Your task to perform on an android device: Is it going to rain this weekend? Image 0: 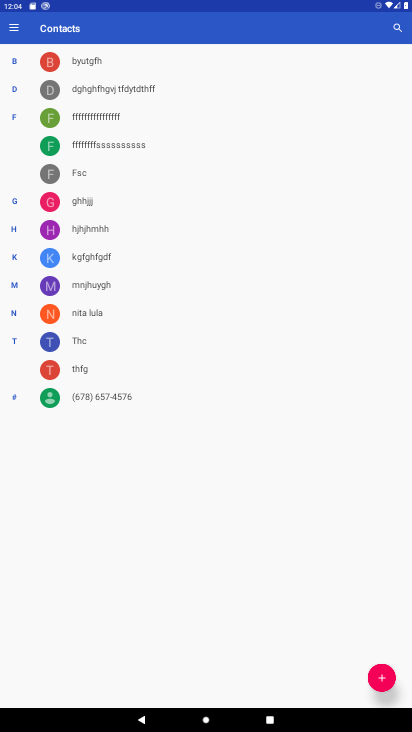
Step 0: press home button
Your task to perform on an android device: Is it going to rain this weekend? Image 1: 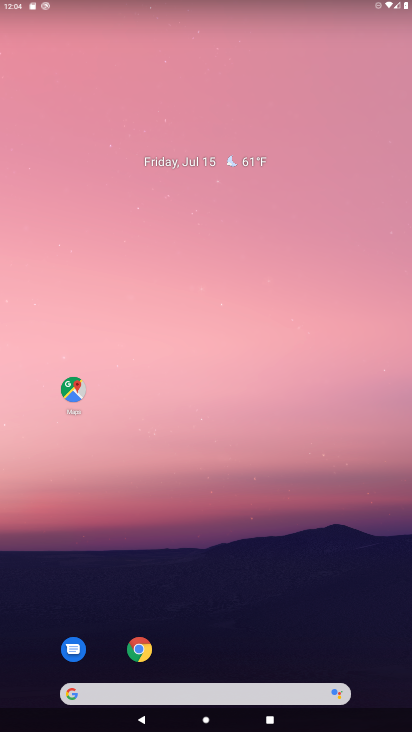
Step 1: click (111, 696)
Your task to perform on an android device: Is it going to rain this weekend? Image 2: 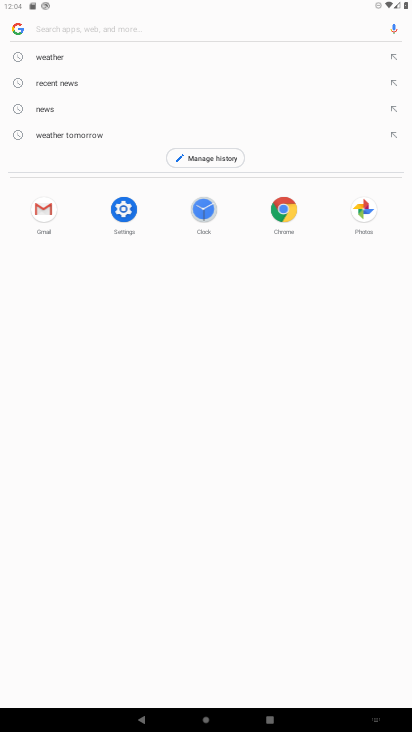
Step 2: click (67, 23)
Your task to perform on an android device: Is it going to rain this weekend? Image 3: 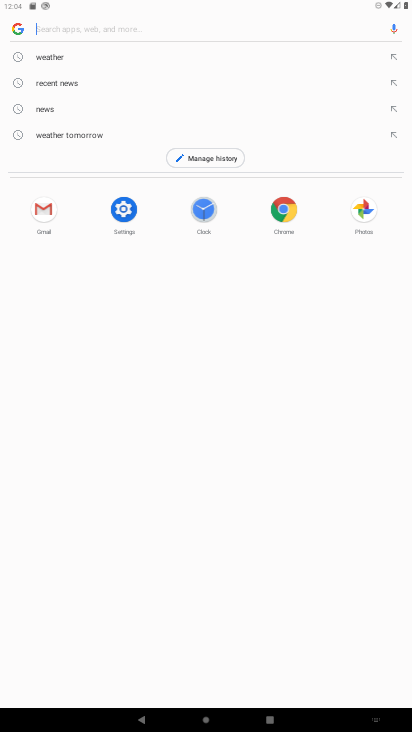
Step 3: click (53, 61)
Your task to perform on an android device: Is it going to rain this weekend? Image 4: 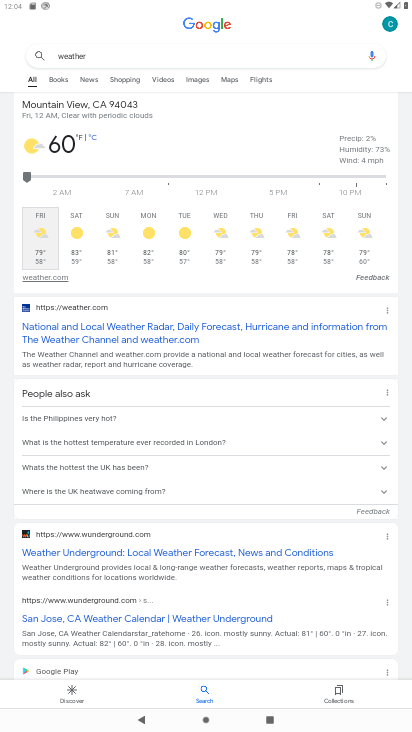
Step 4: click (327, 257)
Your task to perform on an android device: Is it going to rain this weekend? Image 5: 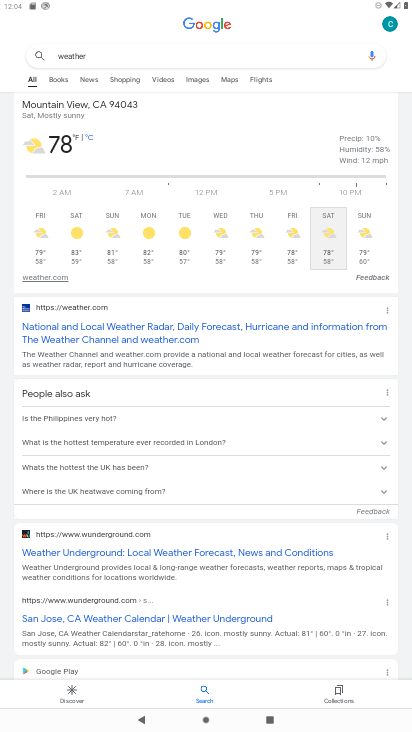
Step 5: task complete